Your task to perform on an android device: Go to wifi settings Image 0: 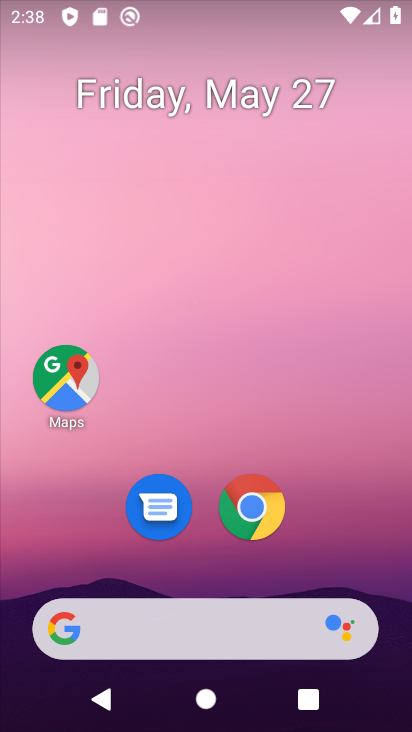
Step 0: press home button
Your task to perform on an android device: Go to wifi settings Image 1: 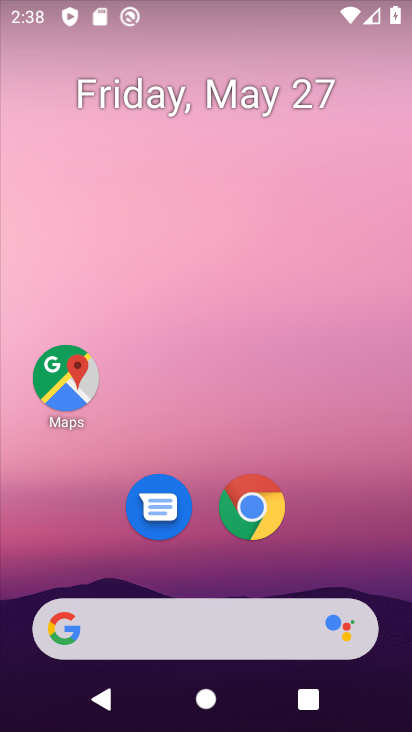
Step 1: drag from (376, 494) to (338, 161)
Your task to perform on an android device: Go to wifi settings Image 2: 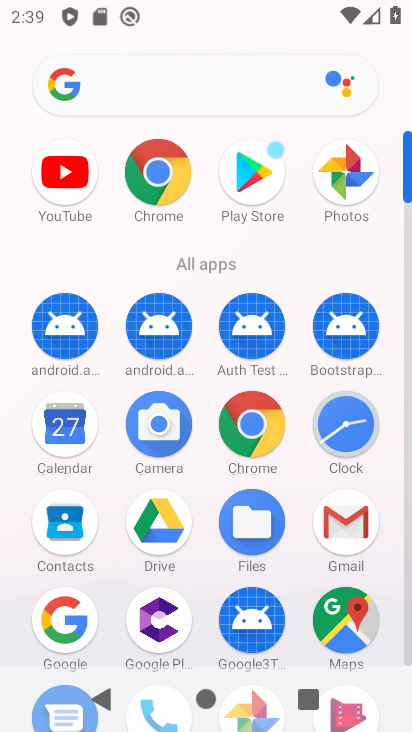
Step 2: drag from (186, 585) to (180, 301)
Your task to perform on an android device: Go to wifi settings Image 3: 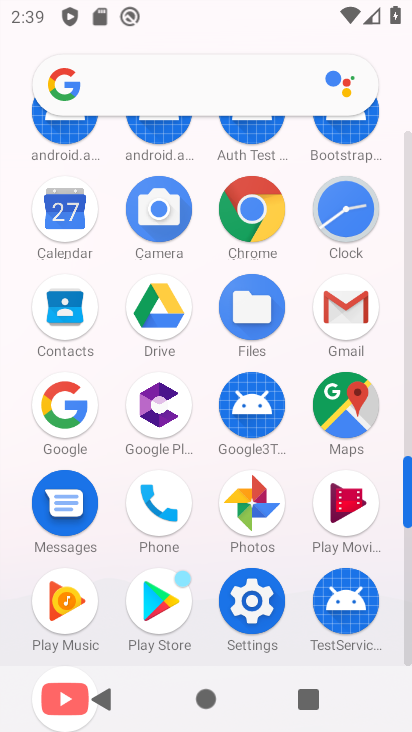
Step 3: click (243, 615)
Your task to perform on an android device: Go to wifi settings Image 4: 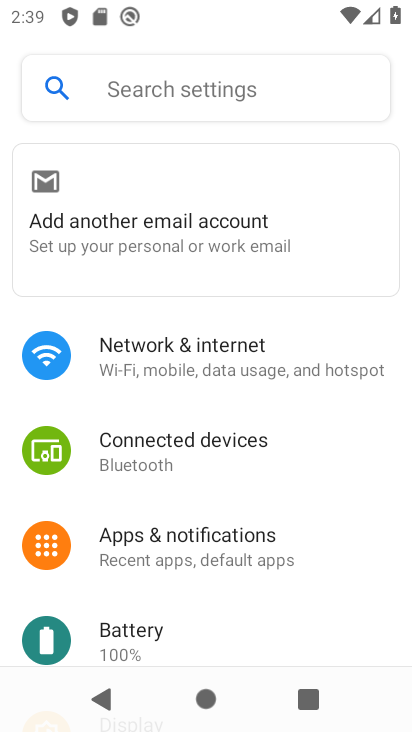
Step 4: click (176, 347)
Your task to perform on an android device: Go to wifi settings Image 5: 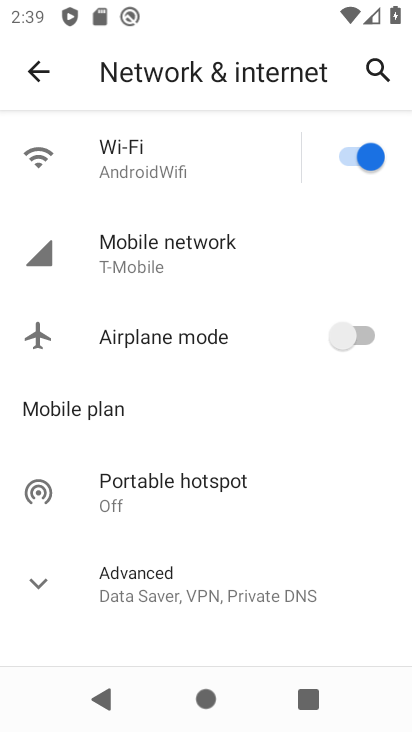
Step 5: task complete